Your task to perform on an android device: Open Google Maps and go to "Timeline" Image 0: 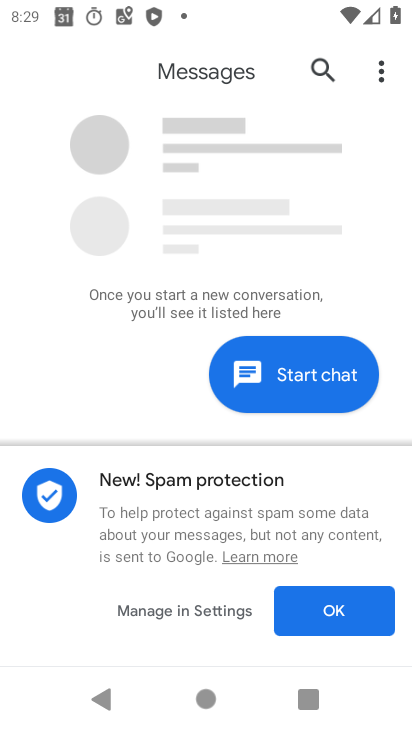
Step 0: press home button
Your task to perform on an android device: Open Google Maps and go to "Timeline" Image 1: 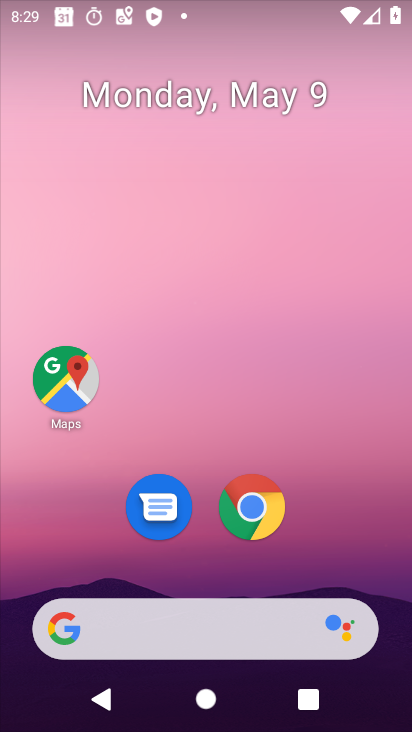
Step 1: drag from (273, 690) to (217, 110)
Your task to perform on an android device: Open Google Maps and go to "Timeline" Image 2: 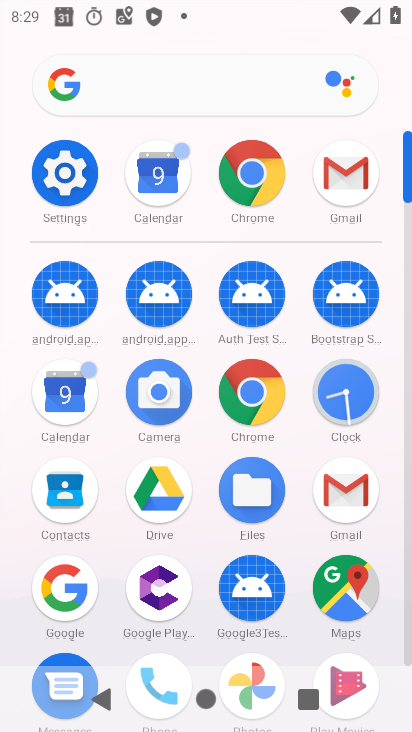
Step 2: click (341, 599)
Your task to perform on an android device: Open Google Maps and go to "Timeline" Image 3: 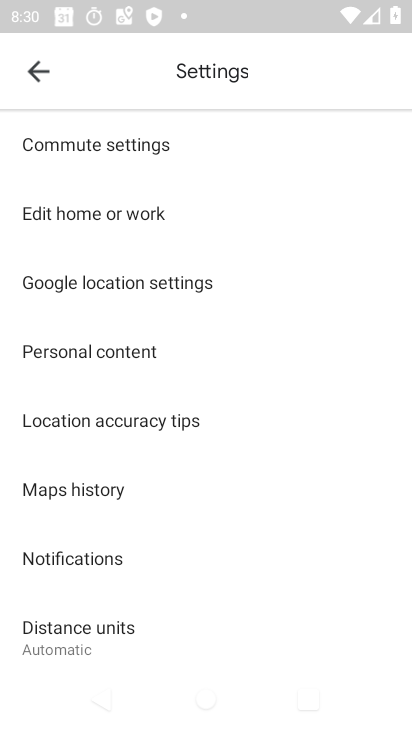
Step 3: click (47, 83)
Your task to perform on an android device: Open Google Maps and go to "Timeline" Image 4: 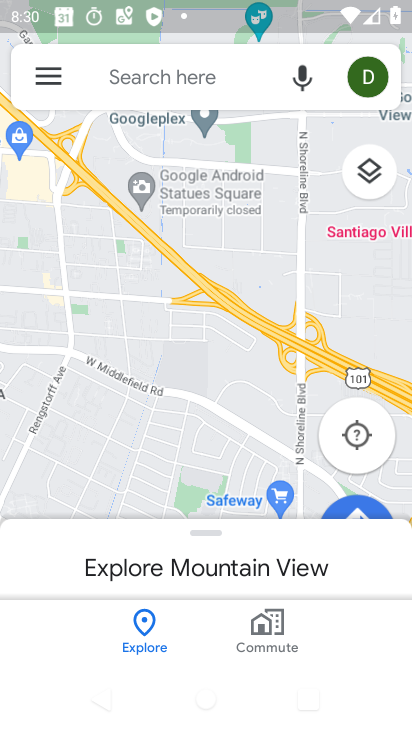
Step 4: click (41, 71)
Your task to perform on an android device: Open Google Maps and go to "Timeline" Image 5: 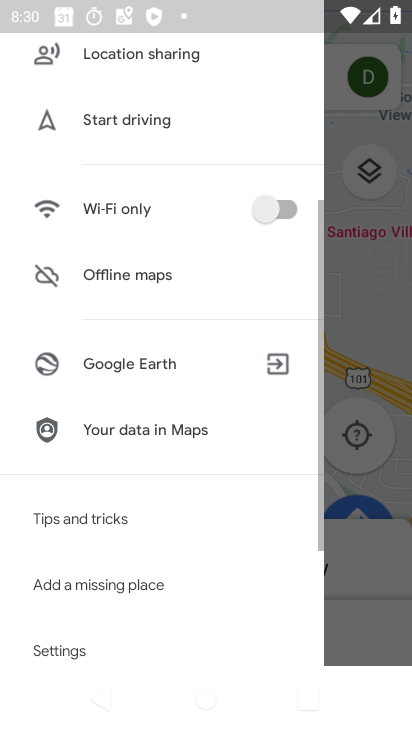
Step 5: drag from (169, 103) to (147, 523)
Your task to perform on an android device: Open Google Maps and go to "Timeline" Image 6: 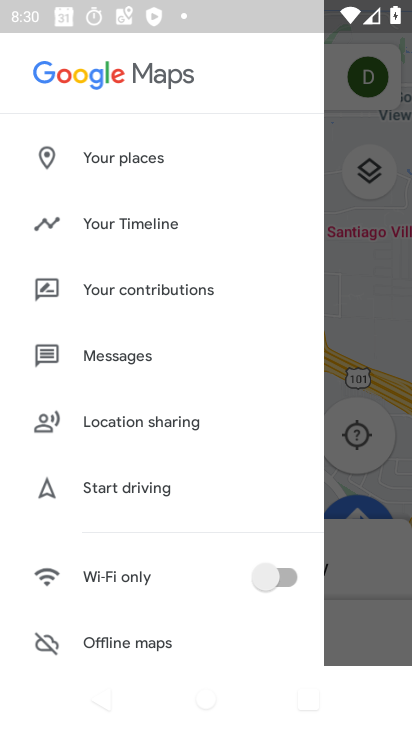
Step 6: click (127, 218)
Your task to perform on an android device: Open Google Maps and go to "Timeline" Image 7: 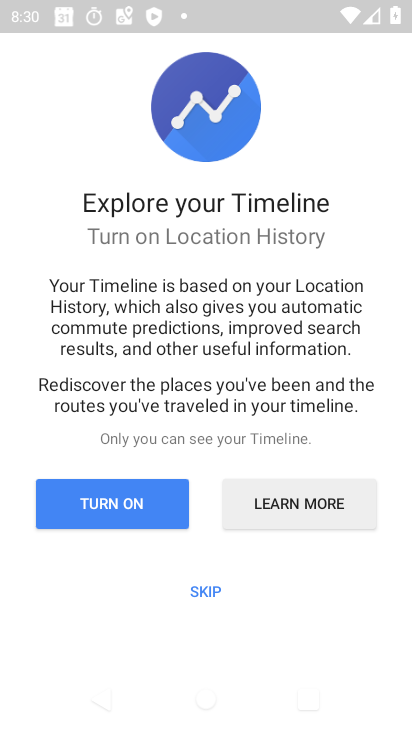
Step 7: click (207, 594)
Your task to perform on an android device: Open Google Maps and go to "Timeline" Image 8: 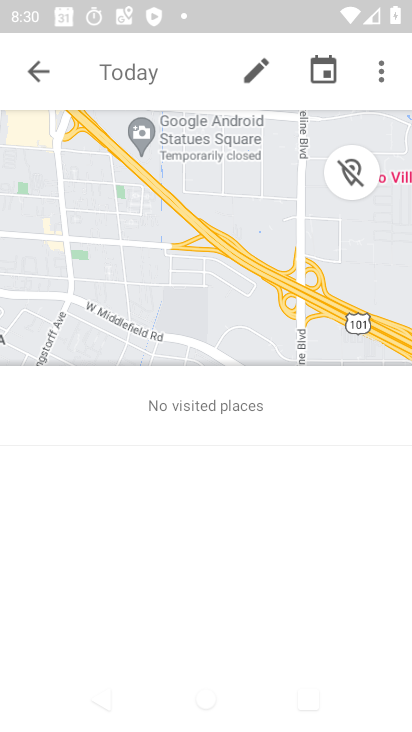
Step 8: task complete